Your task to perform on an android device: find which apps use the phone's location Image 0: 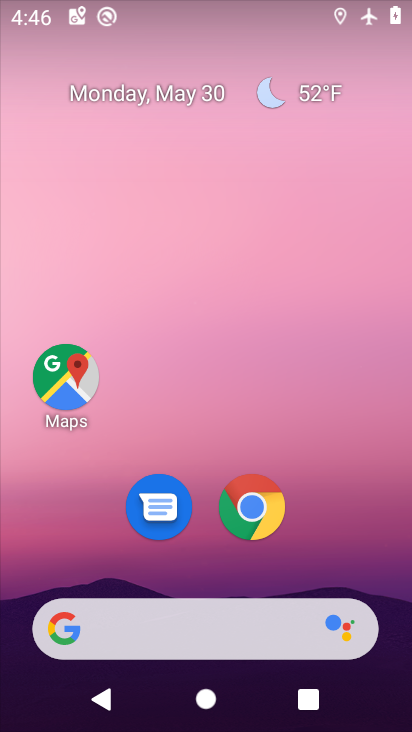
Step 0: drag from (374, 553) to (296, 145)
Your task to perform on an android device: find which apps use the phone's location Image 1: 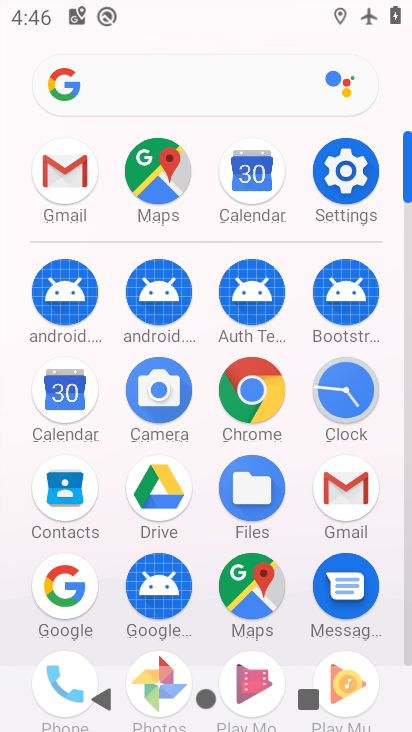
Step 1: click (409, 615)
Your task to perform on an android device: find which apps use the phone's location Image 2: 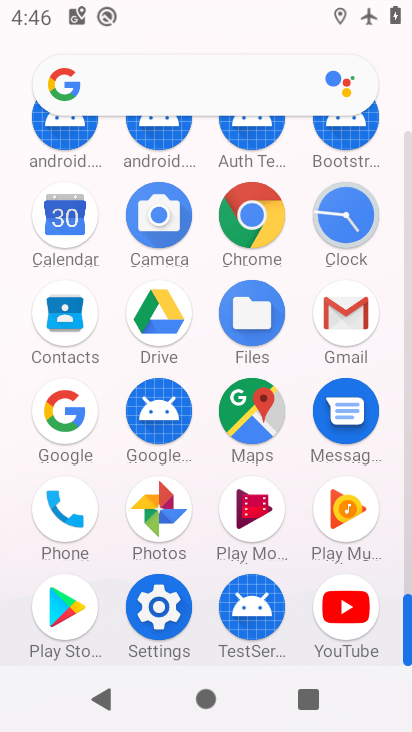
Step 2: click (58, 524)
Your task to perform on an android device: find which apps use the phone's location Image 3: 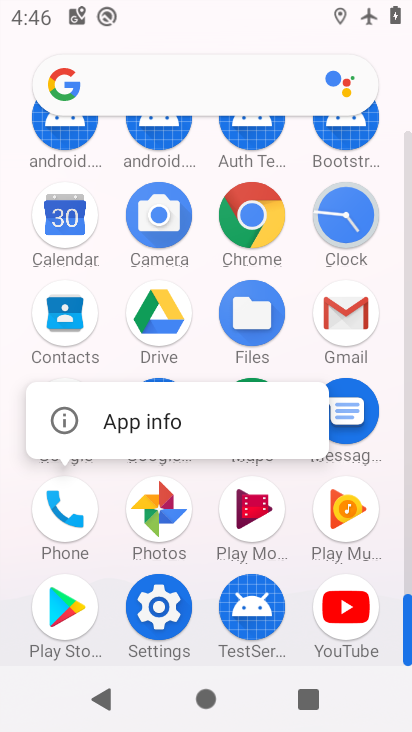
Step 3: click (80, 432)
Your task to perform on an android device: find which apps use the phone's location Image 4: 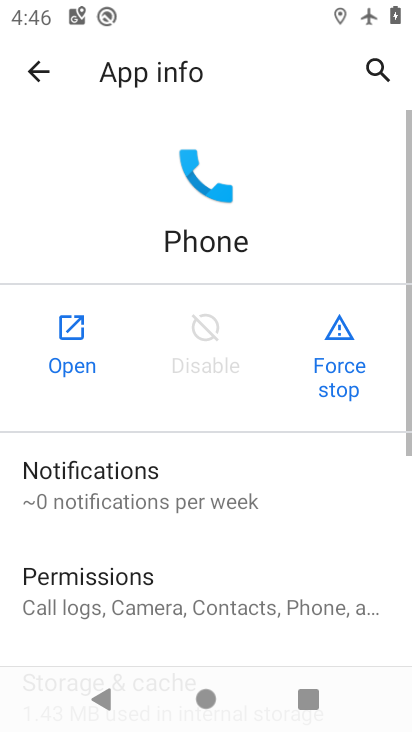
Step 4: click (122, 568)
Your task to perform on an android device: find which apps use the phone's location Image 5: 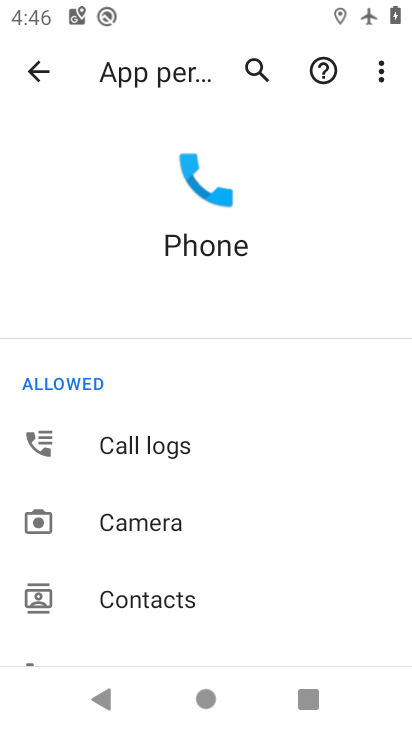
Step 5: drag from (123, 567) to (194, 38)
Your task to perform on an android device: find which apps use the phone's location Image 6: 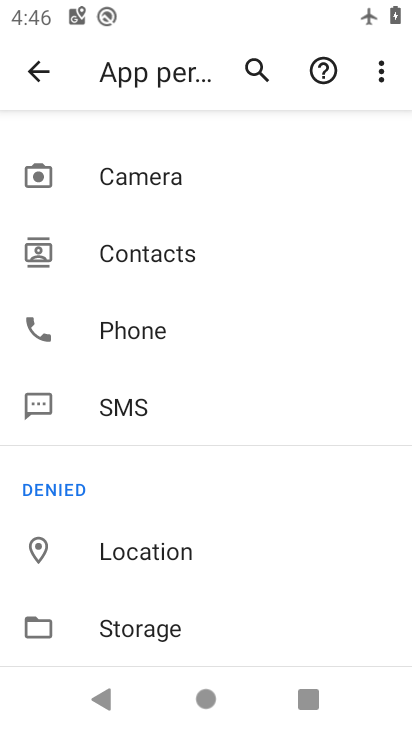
Step 6: click (98, 564)
Your task to perform on an android device: find which apps use the phone's location Image 7: 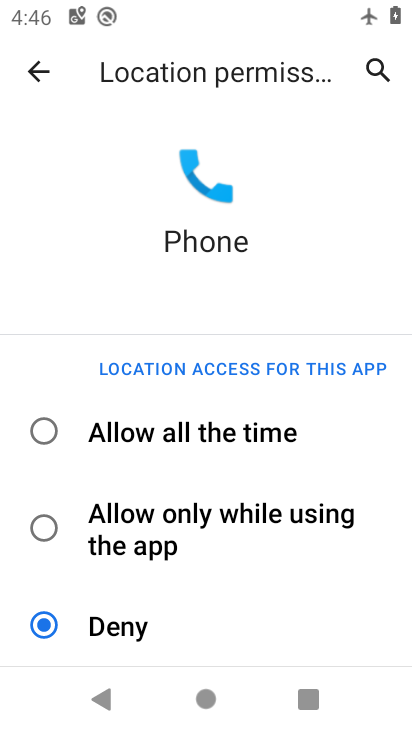
Step 7: drag from (274, 560) to (238, 284)
Your task to perform on an android device: find which apps use the phone's location Image 8: 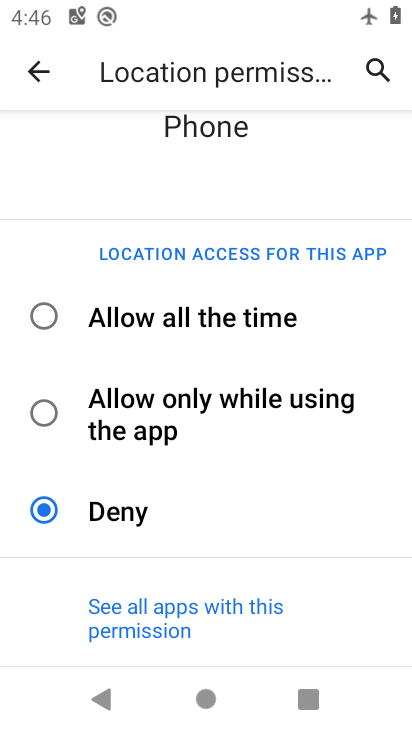
Step 8: click (183, 625)
Your task to perform on an android device: find which apps use the phone's location Image 9: 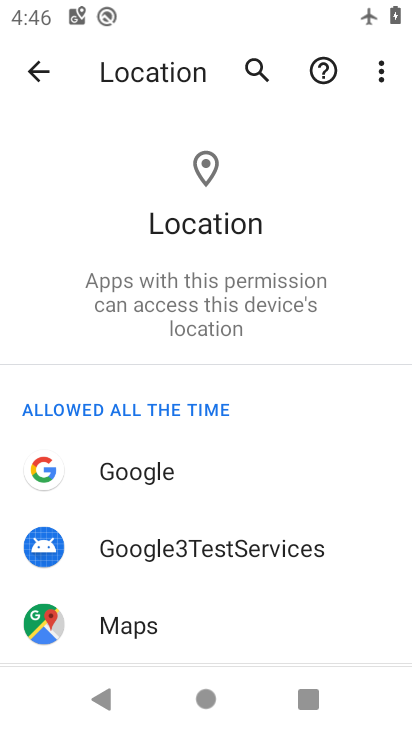
Step 9: task complete